Your task to perform on an android device: Open location settings Image 0: 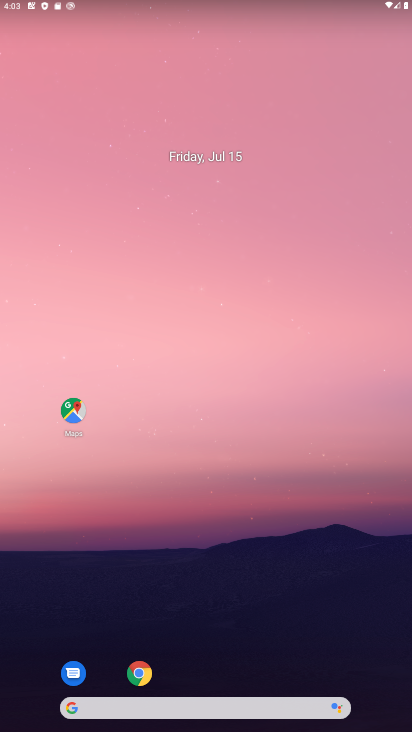
Step 0: drag from (202, 538) to (229, 237)
Your task to perform on an android device: Open location settings Image 1: 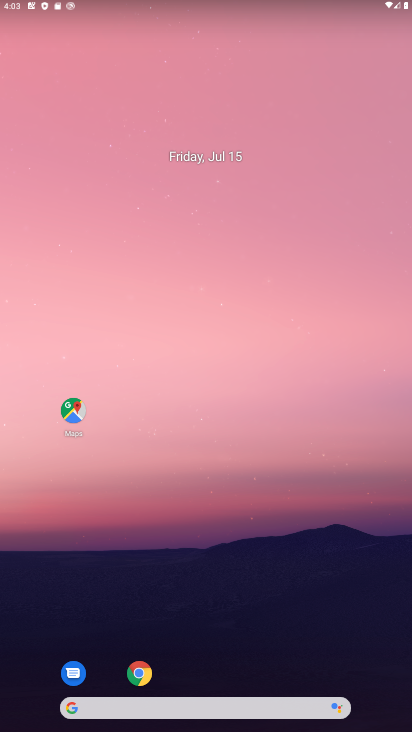
Step 1: drag from (276, 683) to (269, 396)
Your task to perform on an android device: Open location settings Image 2: 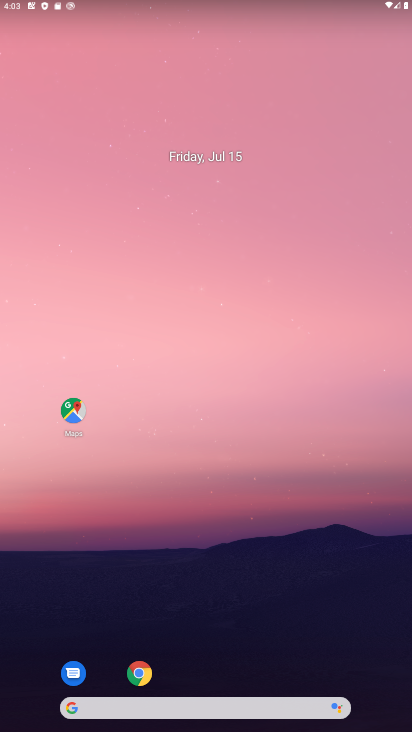
Step 2: drag from (219, 624) to (214, 237)
Your task to perform on an android device: Open location settings Image 3: 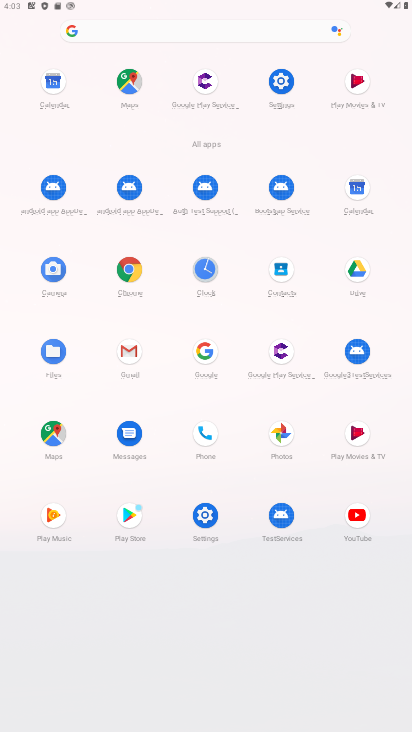
Step 3: click (278, 85)
Your task to perform on an android device: Open location settings Image 4: 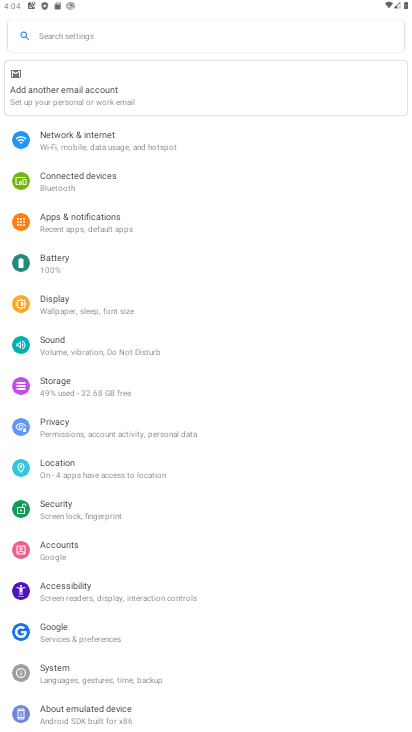
Step 4: click (79, 455)
Your task to perform on an android device: Open location settings Image 5: 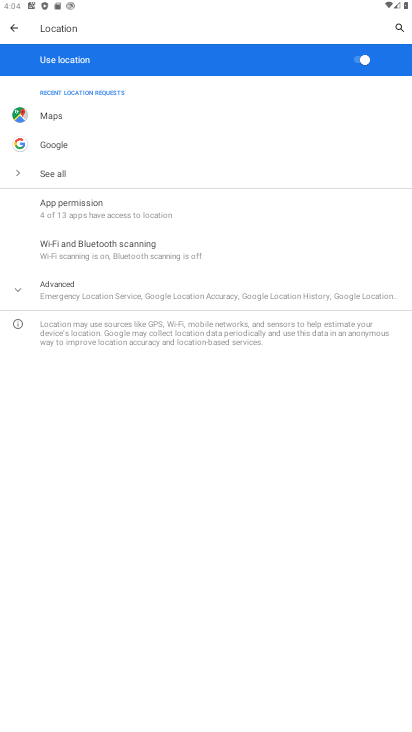
Step 5: task complete